Your task to perform on an android device: Open Chrome and go to settings Image 0: 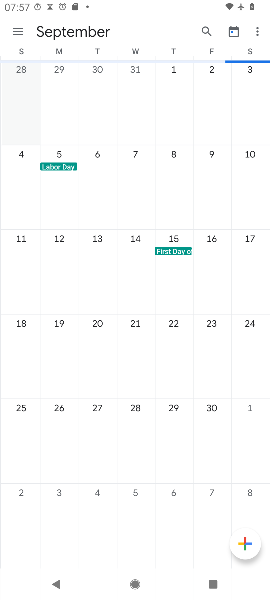
Step 0: press home button
Your task to perform on an android device: Open Chrome and go to settings Image 1: 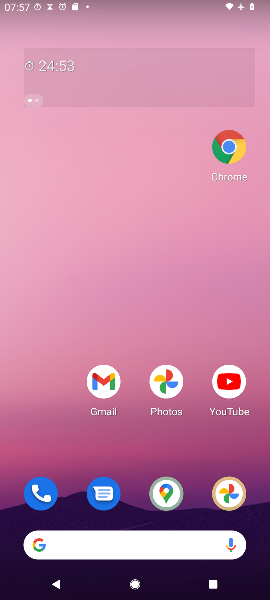
Step 1: click (226, 151)
Your task to perform on an android device: Open Chrome and go to settings Image 2: 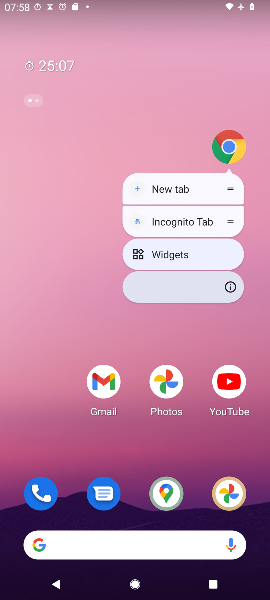
Step 2: click (227, 147)
Your task to perform on an android device: Open Chrome and go to settings Image 3: 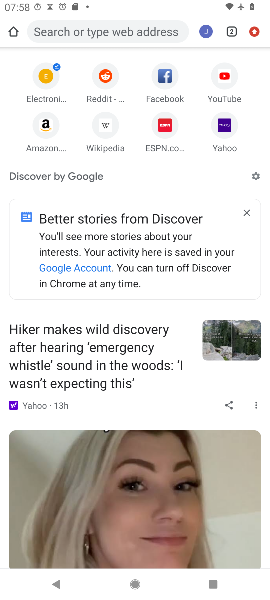
Step 3: task complete